Your task to perform on an android device: Go to eBay Image 0: 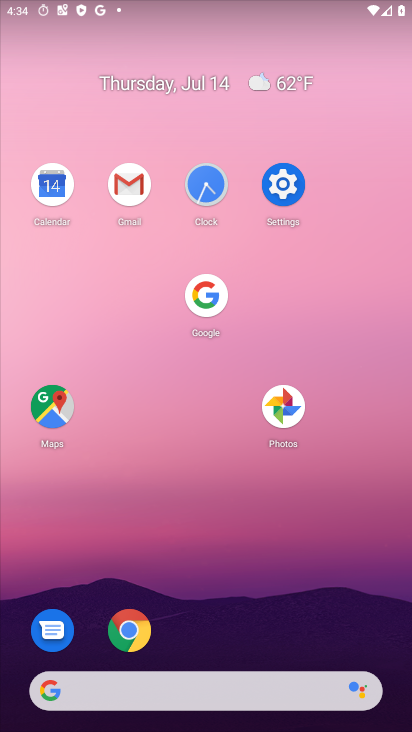
Step 0: click (138, 636)
Your task to perform on an android device: Go to eBay Image 1: 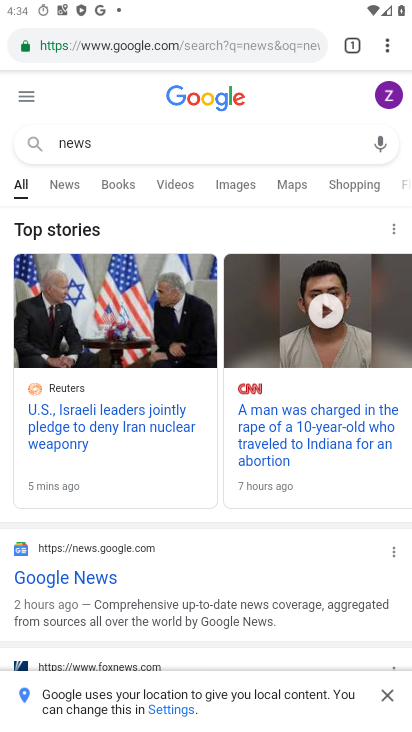
Step 1: click (355, 38)
Your task to perform on an android device: Go to eBay Image 2: 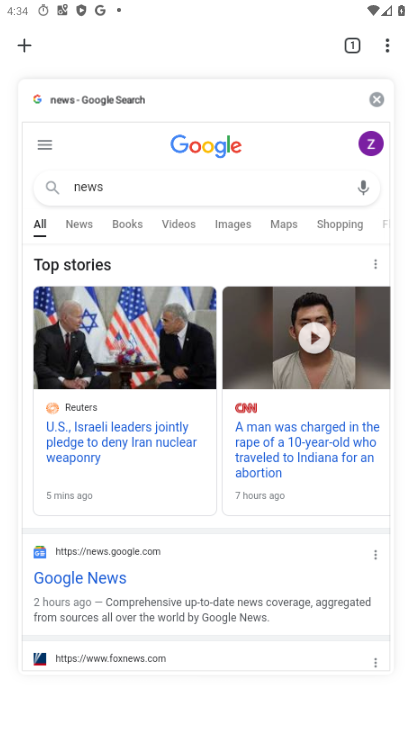
Step 2: click (32, 33)
Your task to perform on an android device: Go to eBay Image 3: 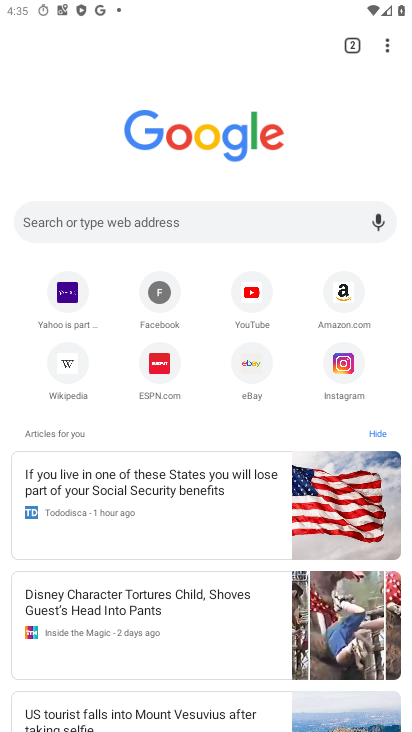
Step 3: click (243, 364)
Your task to perform on an android device: Go to eBay Image 4: 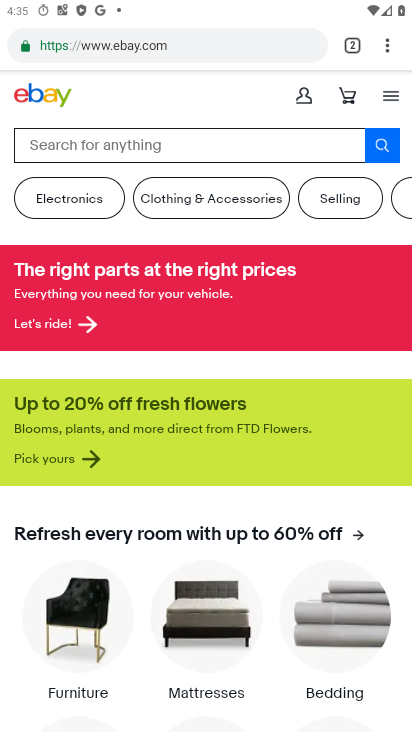
Step 4: task complete